Your task to perform on an android device: check google app version Image 0: 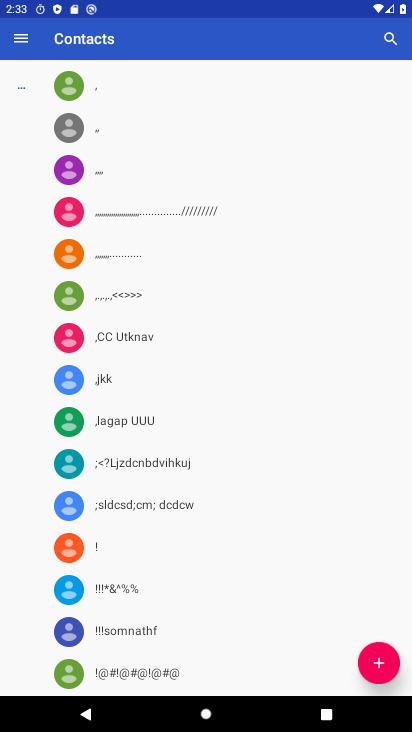
Step 0: press home button
Your task to perform on an android device: check google app version Image 1: 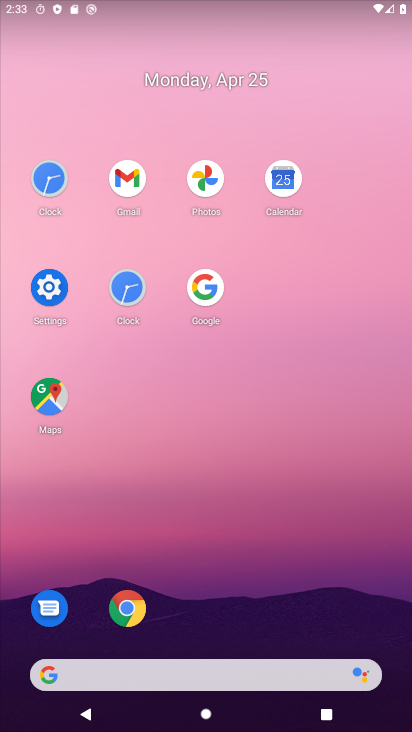
Step 1: click (199, 293)
Your task to perform on an android device: check google app version Image 2: 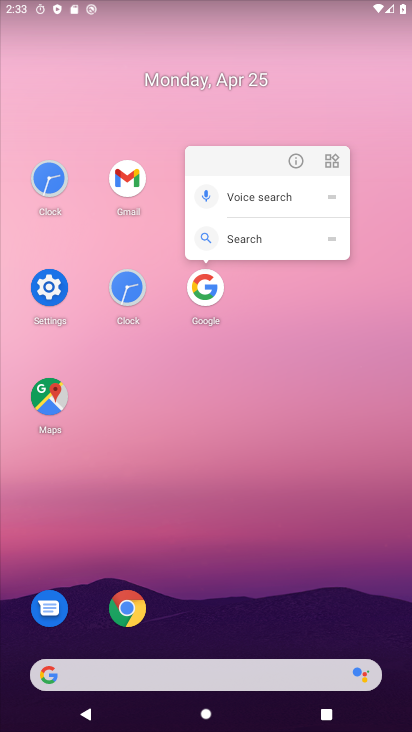
Step 2: click (290, 162)
Your task to perform on an android device: check google app version Image 3: 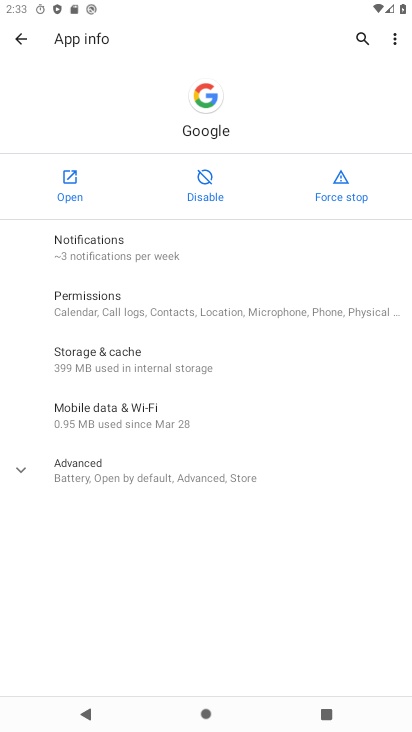
Step 3: click (174, 484)
Your task to perform on an android device: check google app version Image 4: 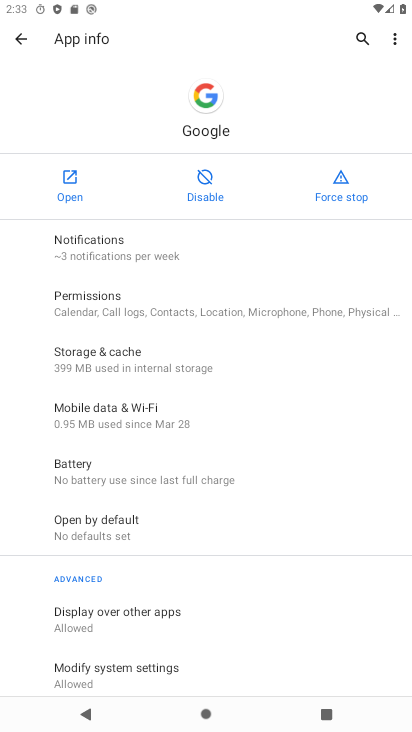
Step 4: task complete